Your task to perform on an android device: Search for Italian restaurants on Maps Image 0: 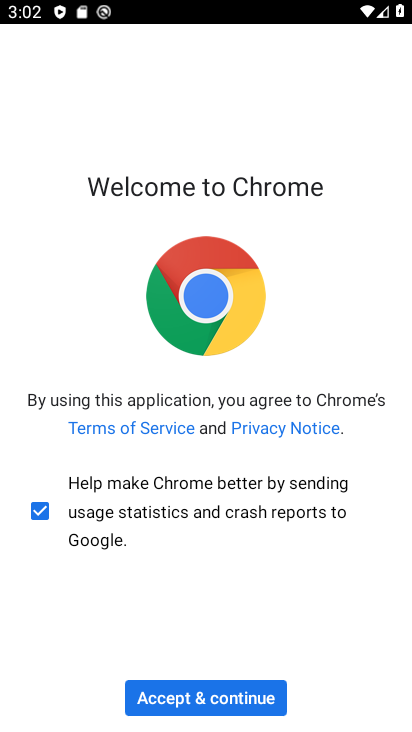
Step 0: press home button
Your task to perform on an android device: Search for Italian restaurants on Maps Image 1: 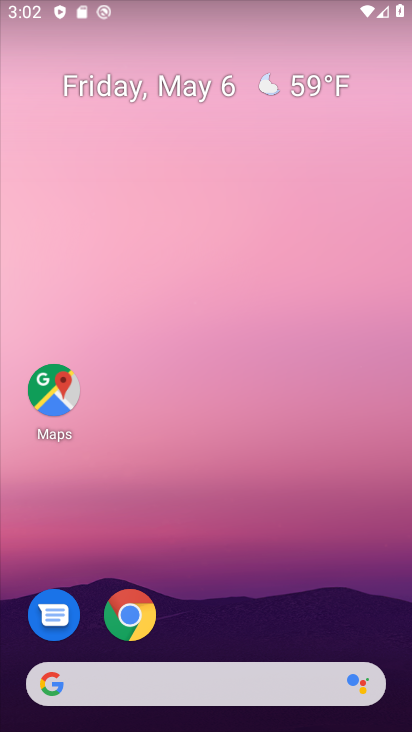
Step 1: drag from (263, 576) to (280, 245)
Your task to perform on an android device: Search for Italian restaurants on Maps Image 2: 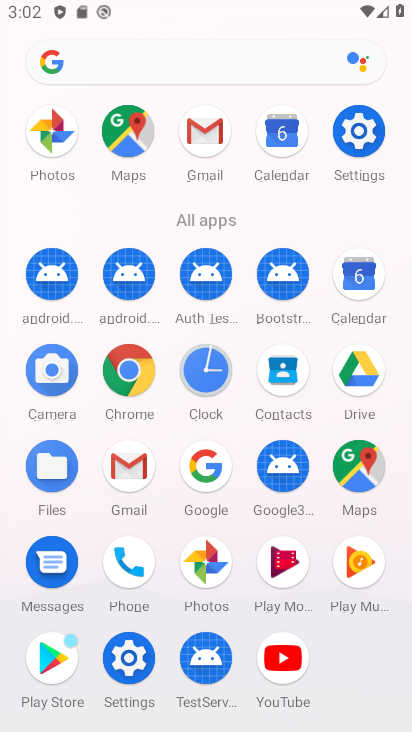
Step 2: click (125, 126)
Your task to perform on an android device: Search for Italian restaurants on Maps Image 3: 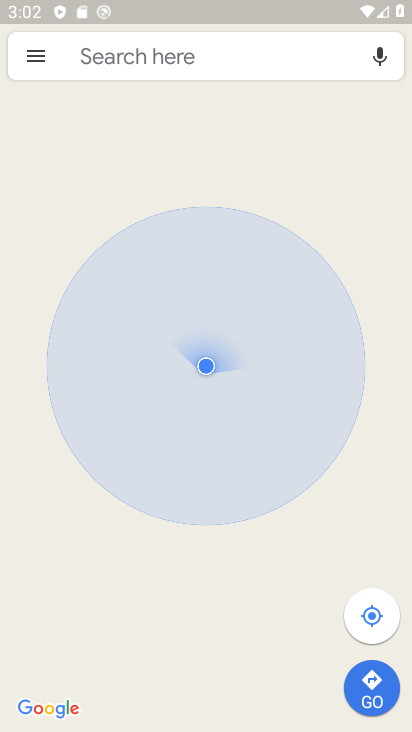
Step 3: click (249, 53)
Your task to perform on an android device: Search for Italian restaurants on Maps Image 4: 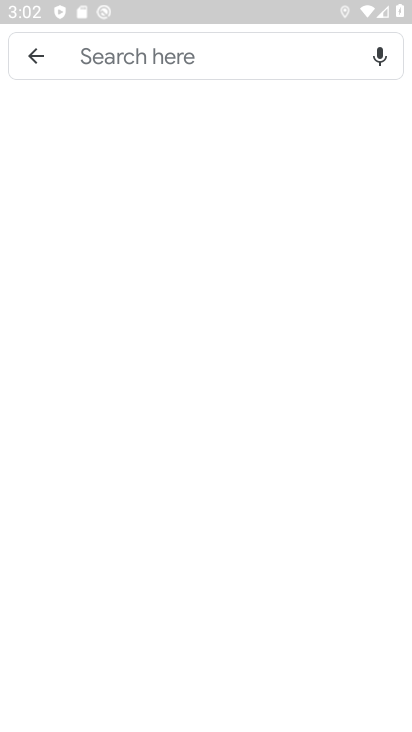
Step 4: type " Italian restaurants"
Your task to perform on an android device: Search for Italian restaurants on Maps Image 5: 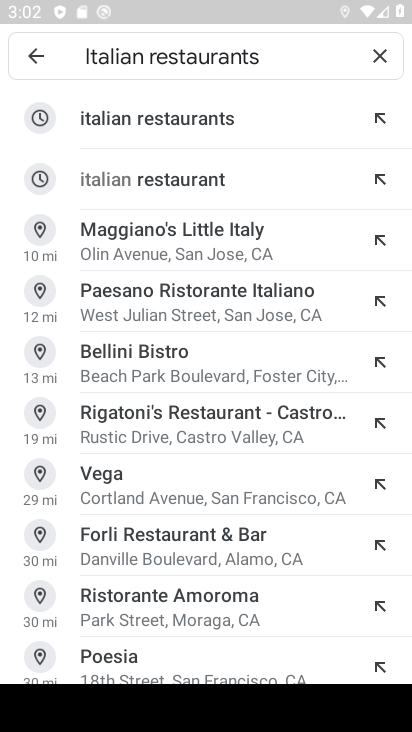
Step 5: click (133, 120)
Your task to perform on an android device: Search for Italian restaurants on Maps Image 6: 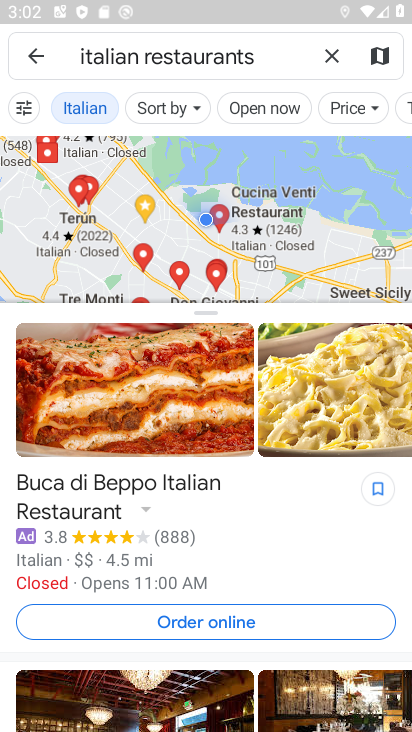
Step 6: task complete